Your task to perform on an android device: Go to Android settings Image 0: 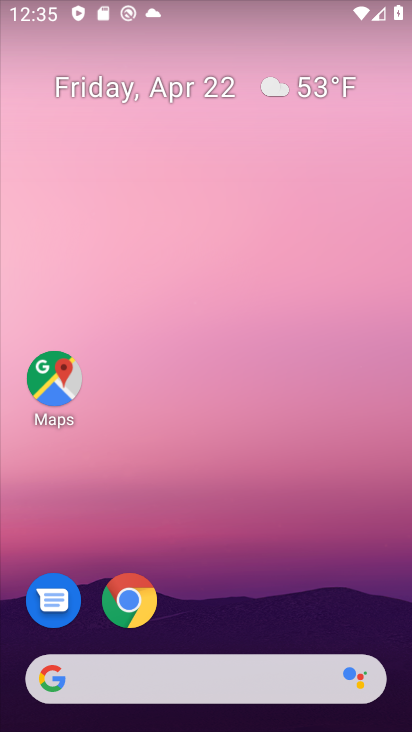
Step 0: click (156, 591)
Your task to perform on an android device: Go to Android settings Image 1: 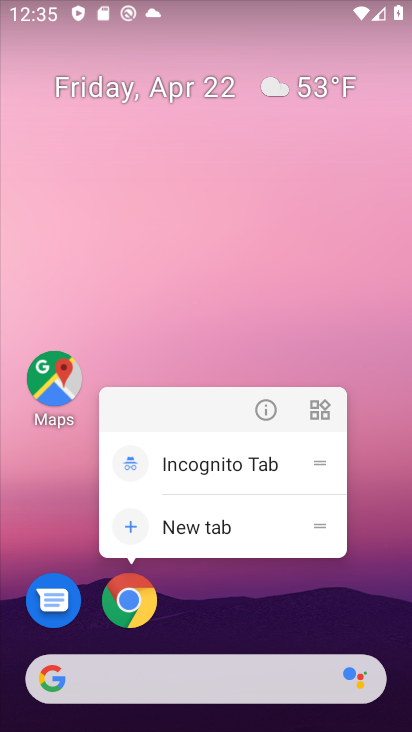
Step 1: drag from (230, 600) to (339, 77)
Your task to perform on an android device: Go to Android settings Image 2: 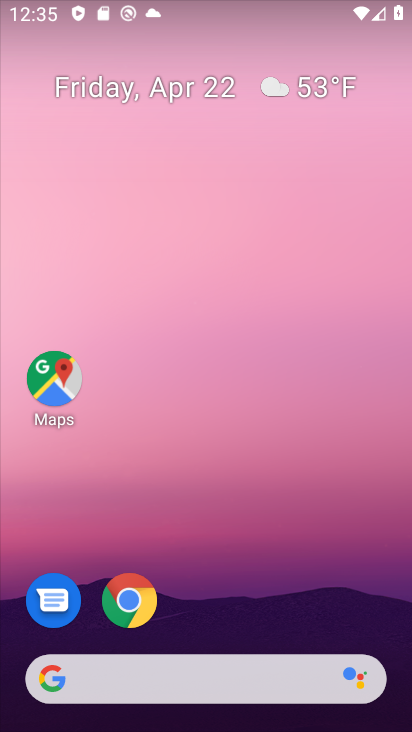
Step 2: drag from (221, 630) to (325, 85)
Your task to perform on an android device: Go to Android settings Image 3: 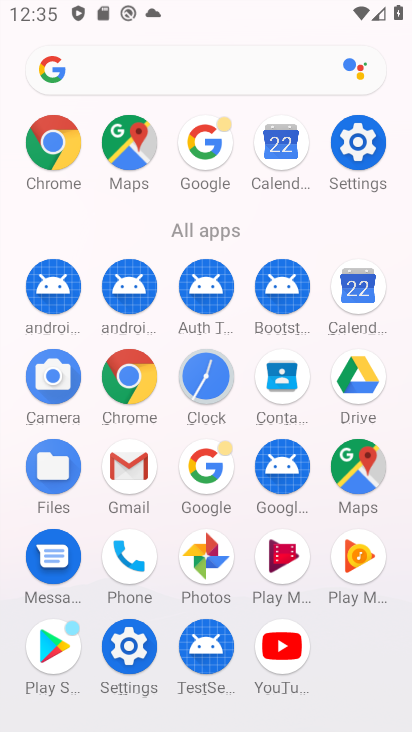
Step 3: click (139, 649)
Your task to perform on an android device: Go to Android settings Image 4: 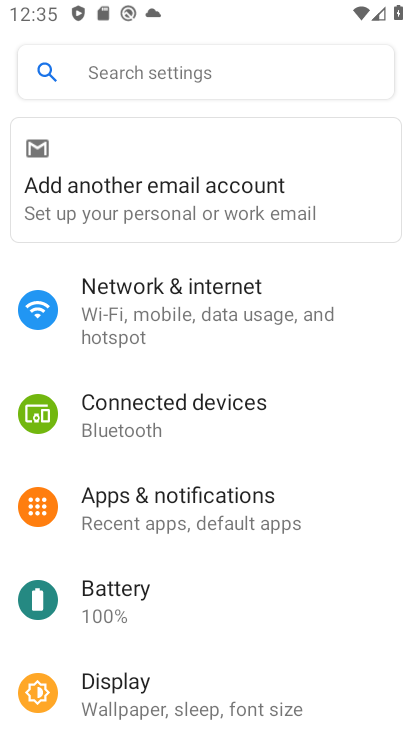
Step 4: task complete